Your task to perform on an android device: turn off javascript in the chrome app Image 0: 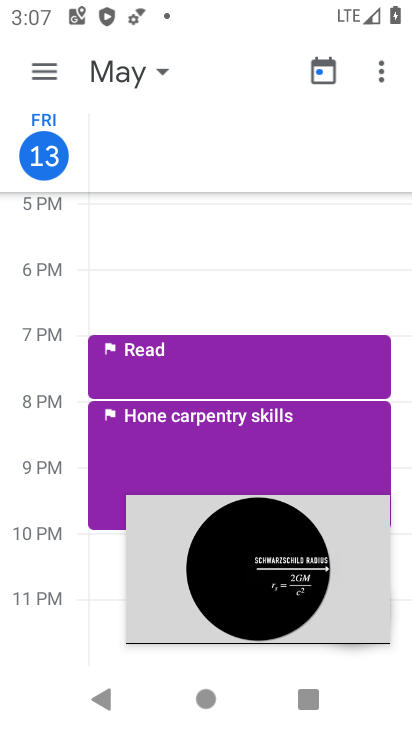
Step 0: press home button
Your task to perform on an android device: turn off javascript in the chrome app Image 1: 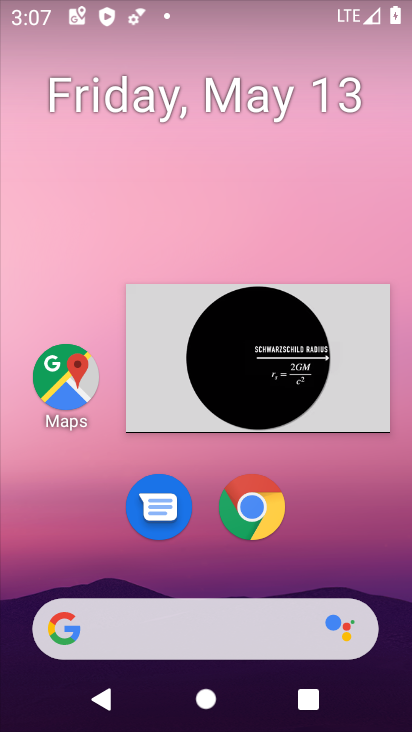
Step 1: click (363, 300)
Your task to perform on an android device: turn off javascript in the chrome app Image 2: 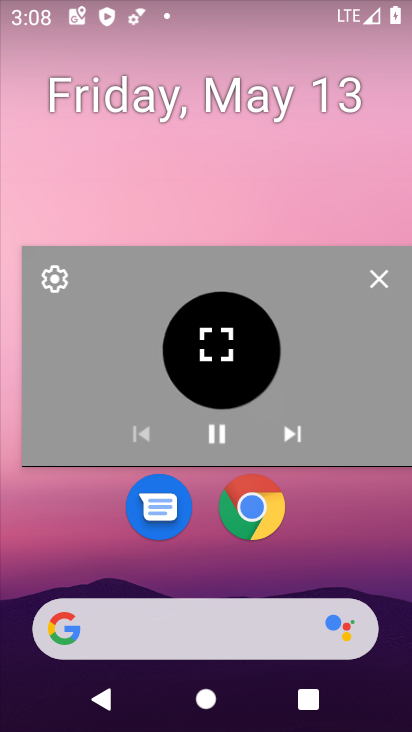
Step 2: click (373, 275)
Your task to perform on an android device: turn off javascript in the chrome app Image 3: 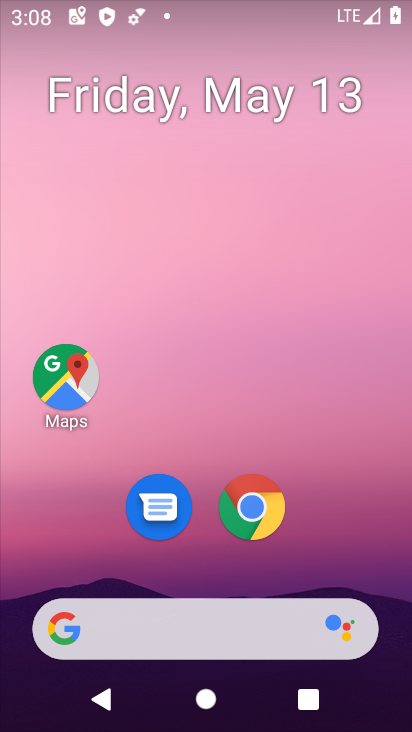
Step 3: click (259, 513)
Your task to perform on an android device: turn off javascript in the chrome app Image 4: 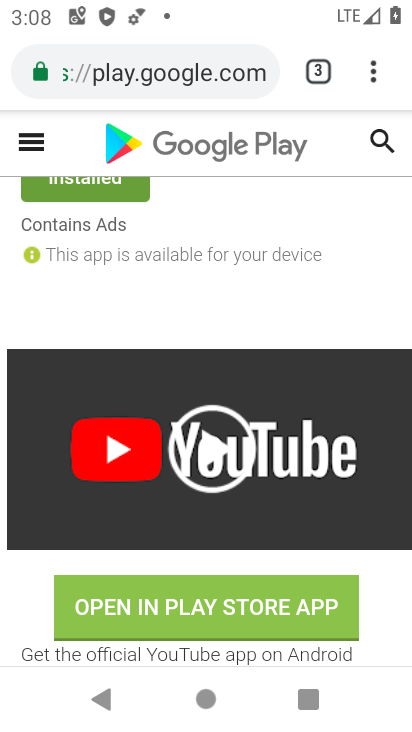
Step 4: click (366, 70)
Your task to perform on an android device: turn off javascript in the chrome app Image 5: 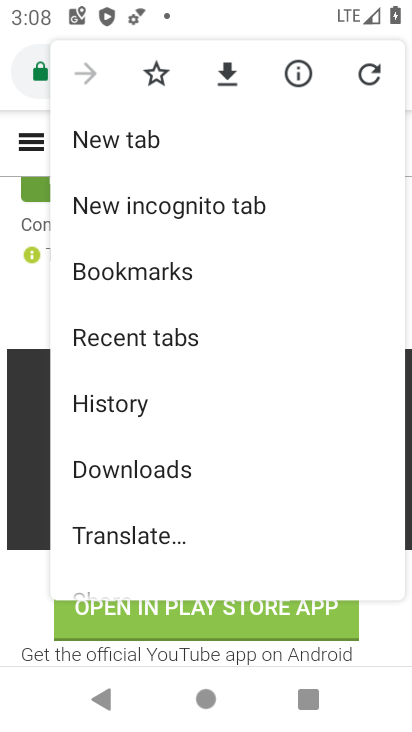
Step 5: drag from (258, 494) to (294, 183)
Your task to perform on an android device: turn off javascript in the chrome app Image 6: 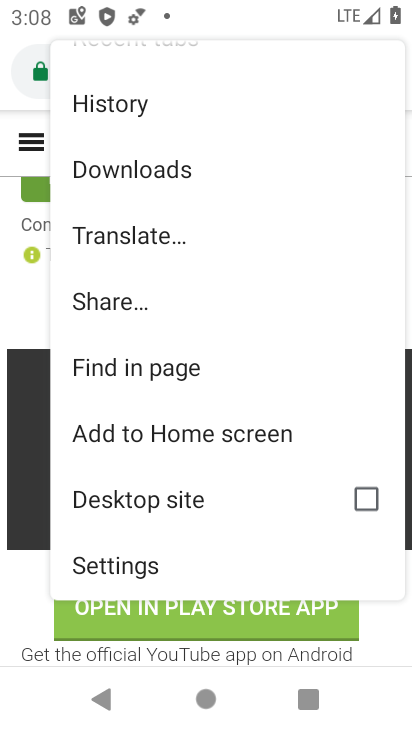
Step 6: click (165, 565)
Your task to perform on an android device: turn off javascript in the chrome app Image 7: 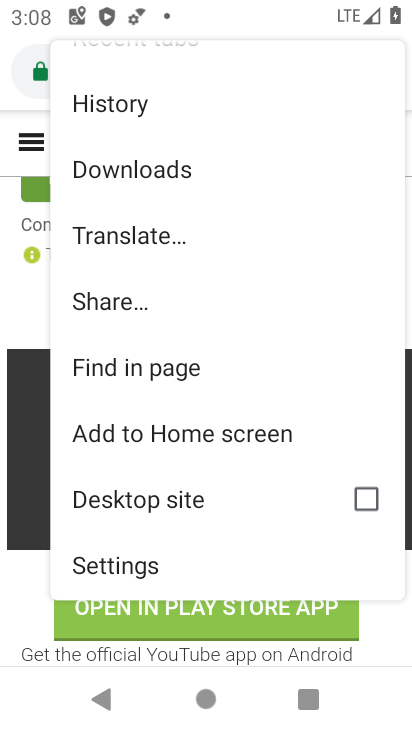
Step 7: click (165, 565)
Your task to perform on an android device: turn off javascript in the chrome app Image 8: 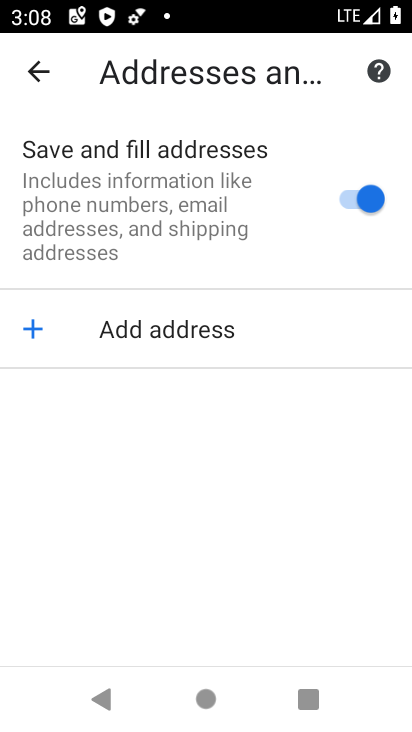
Step 8: press back button
Your task to perform on an android device: turn off javascript in the chrome app Image 9: 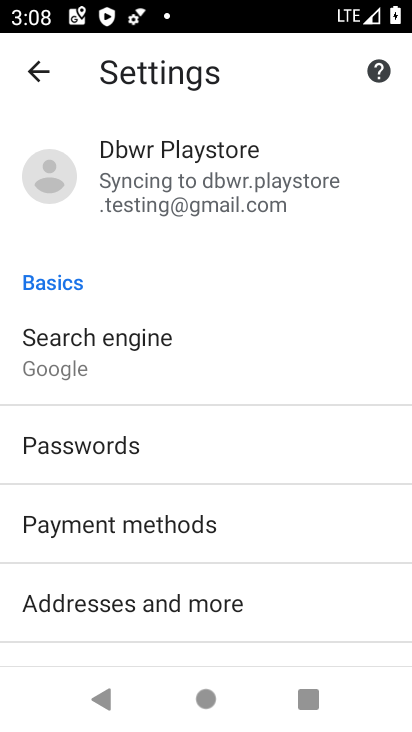
Step 9: drag from (326, 535) to (397, 119)
Your task to perform on an android device: turn off javascript in the chrome app Image 10: 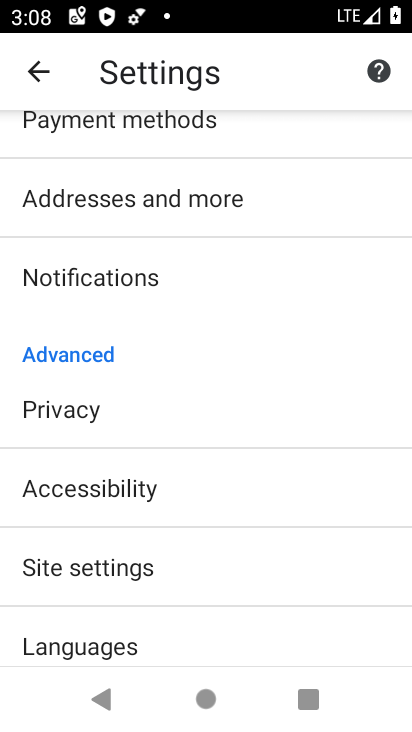
Step 10: click (149, 568)
Your task to perform on an android device: turn off javascript in the chrome app Image 11: 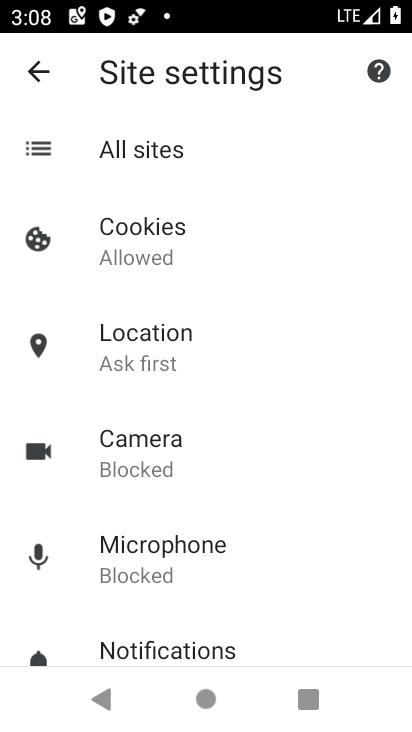
Step 11: drag from (250, 557) to (363, 87)
Your task to perform on an android device: turn off javascript in the chrome app Image 12: 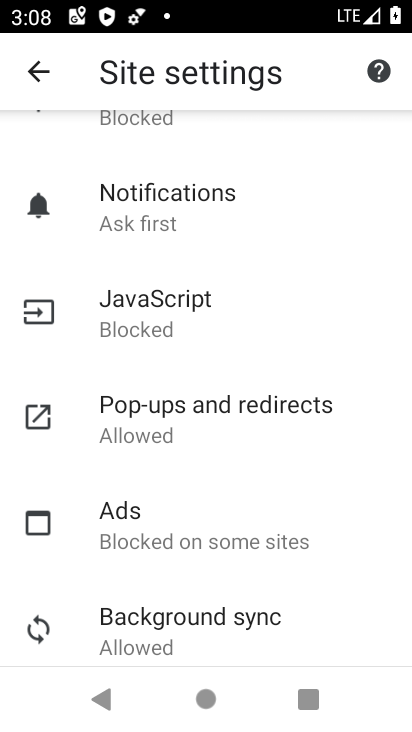
Step 12: click (266, 308)
Your task to perform on an android device: turn off javascript in the chrome app Image 13: 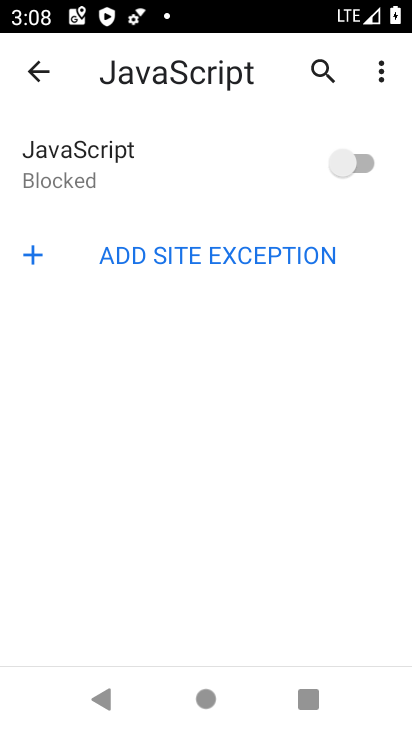
Step 13: task complete